Your task to perform on an android device: Open Amazon Image 0: 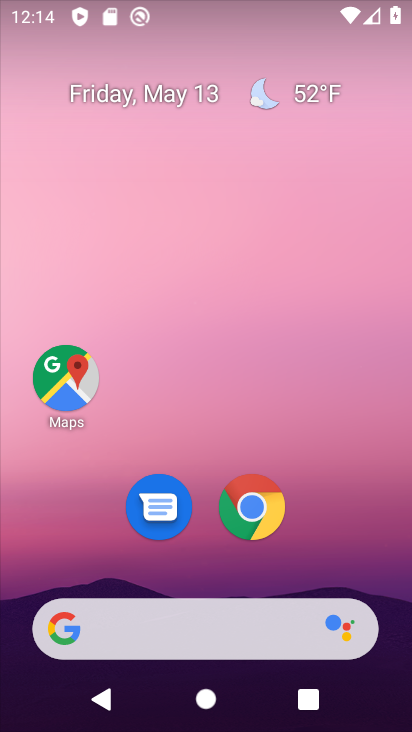
Step 0: click (254, 516)
Your task to perform on an android device: Open Amazon Image 1: 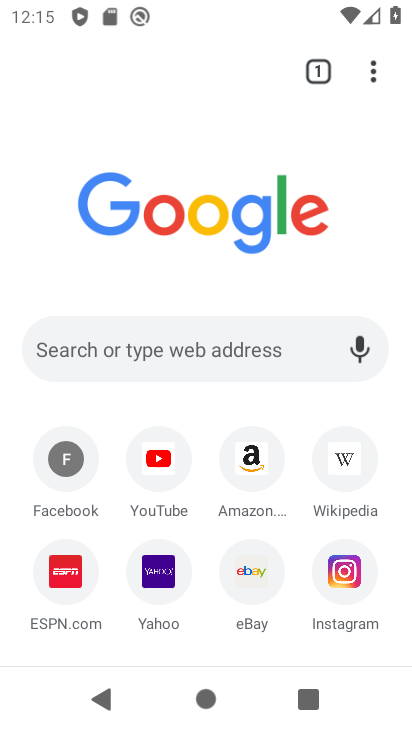
Step 1: click (256, 453)
Your task to perform on an android device: Open Amazon Image 2: 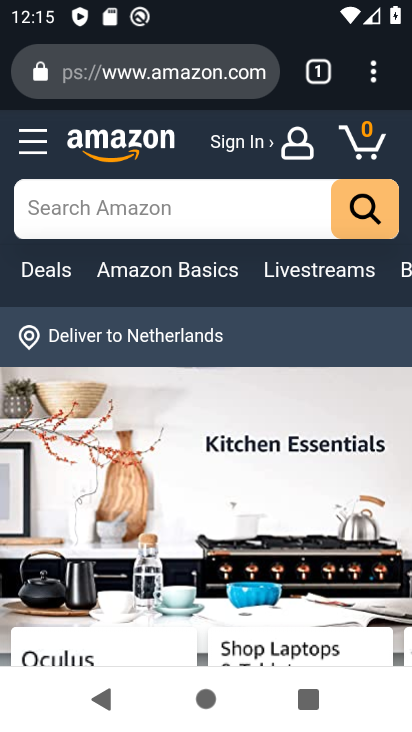
Step 2: task complete